Your task to perform on an android device: See recent photos Image 0: 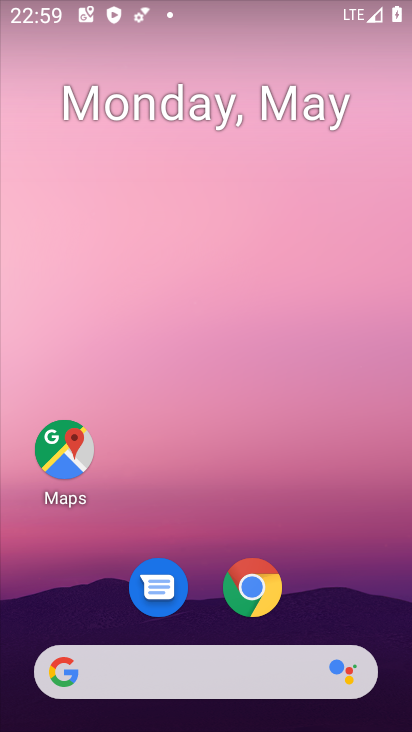
Step 0: drag from (213, 632) to (174, 26)
Your task to perform on an android device: See recent photos Image 1: 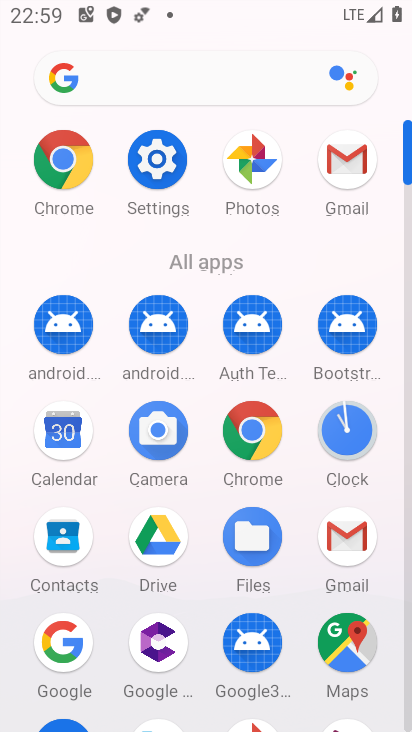
Step 1: drag from (208, 669) to (192, 204)
Your task to perform on an android device: See recent photos Image 2: 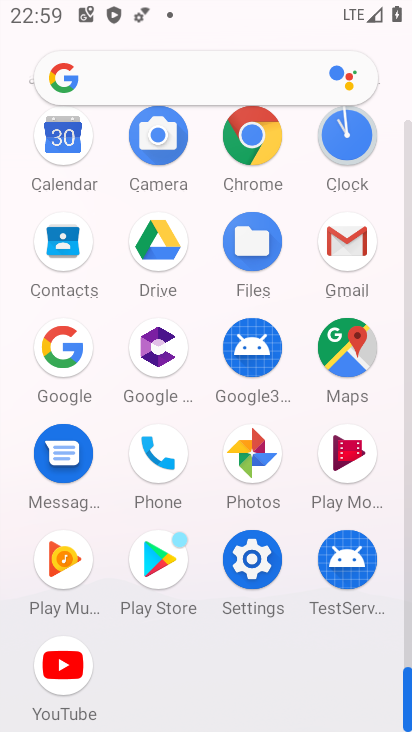
Step 2: click (246, 474)
Your task to perform on an android device: See recent photos Image 3: 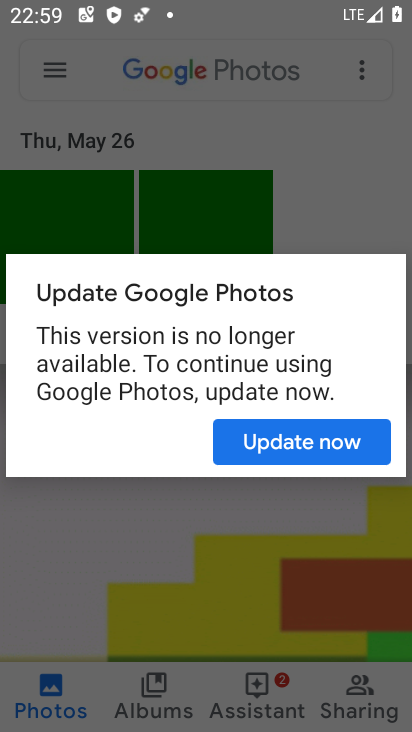
Step 3: click (289, 425)
Your task to perform on an android device: See recent photos Image 4: 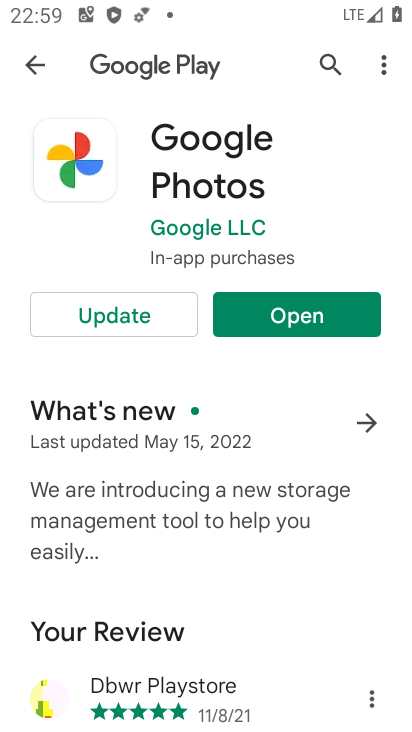
Step 4: click (283, 332)
Your task to perform on an android device: See recent photos Image 5: 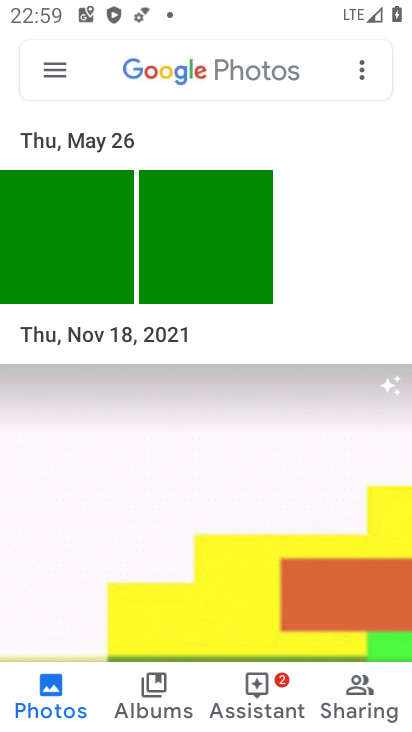
Step 5: task complete